Your task to perform on an android device: check storage Image 0: 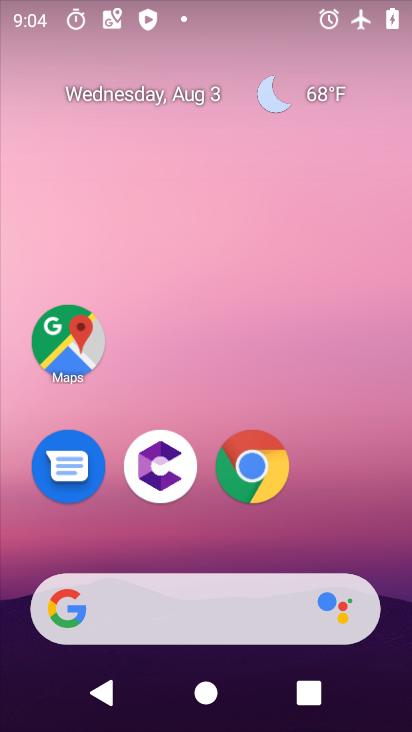
Step 0: drag from (394, 504) to (274, 8)
Your task to perform on an android device: check storage Image 1: 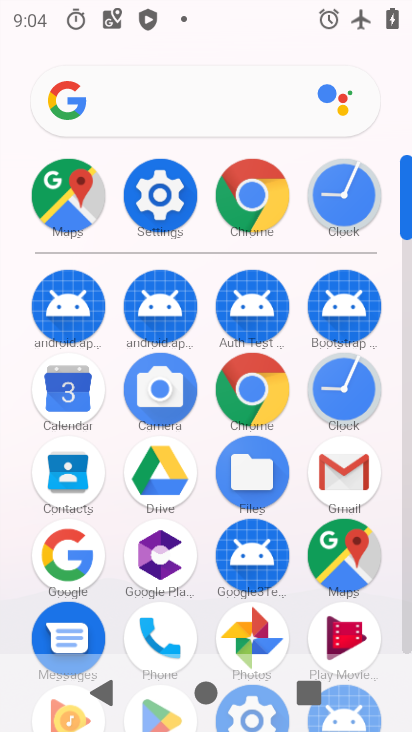
Step 1: click (147, 208)
Your task to perform on an android device: check storage Image 2: 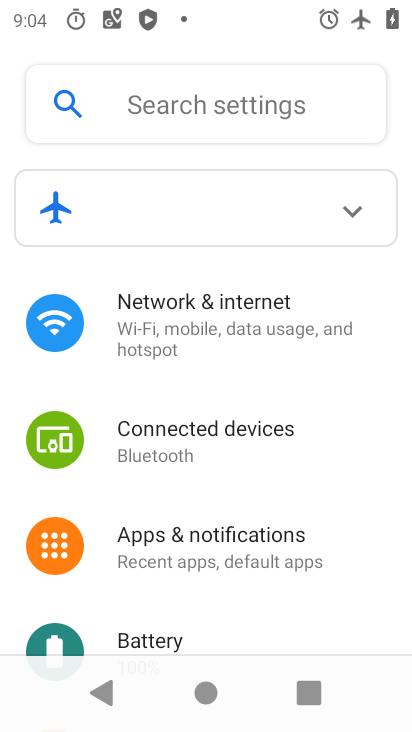
Step 2: drag from (331, 605) to (324, 95)
Your task to perform on an android device: check storage Image 3: 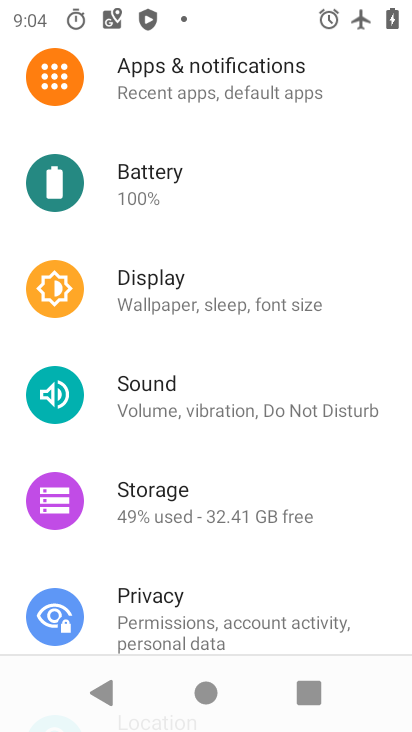
Step 3: click (150, 513)
Your task to perform on an android device: check storage Image 4: 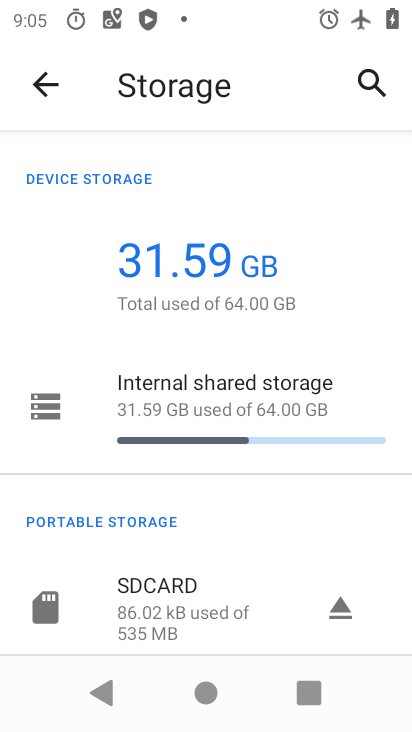
Step 4: task complete